Your task to perform on an android device: Show me productivity apps on the Play Store Image 0: 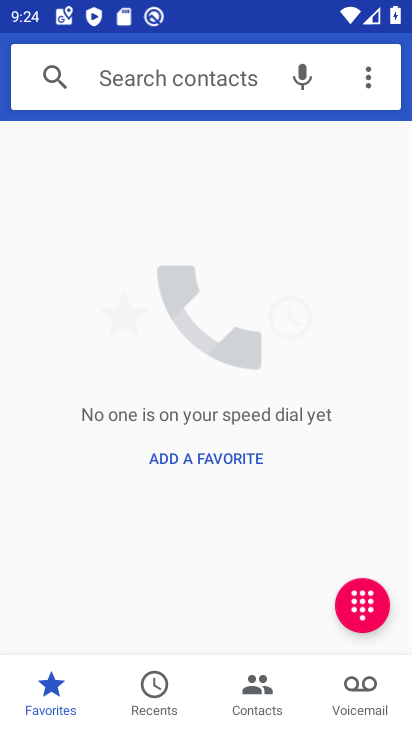
Step 0: press home button
Your task to perform on an android device: Show me productivity apps on the Play Store Image 1: 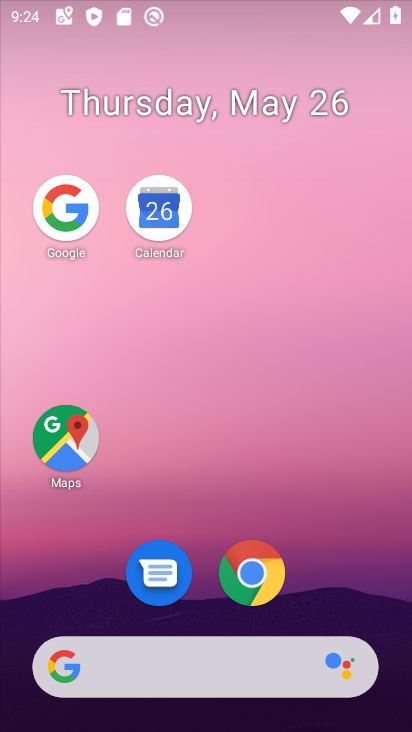
Step 1: drag from (327, 603) to (283, 156)
Your task to perform on an android device: Show me productivity apps on the Play Store Image 2: 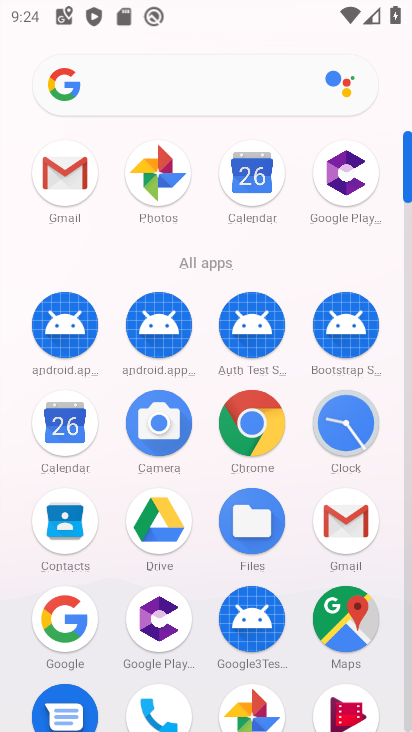
Step 2: drag from (269, 543) to (246, 153)
Your task to perform on an android device: Show me productivity apps on the Play Store Image 3: 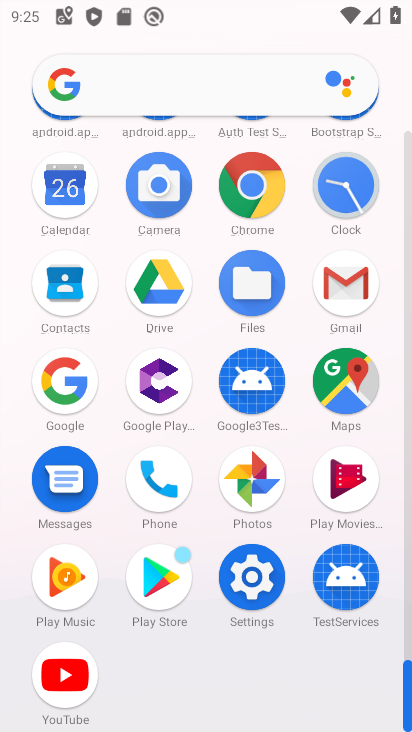
Step 3: click (163, 592)
Your task to perform on an android device: Show me productivity apps on the Play Store Image 4: 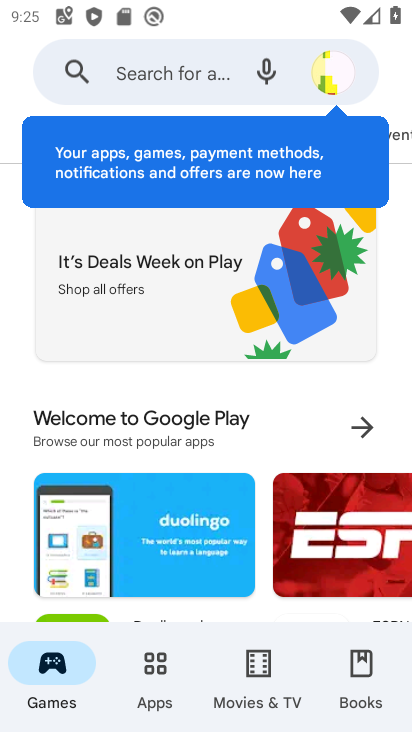
Step 4: click (165, 673)
Your task to perform on an android device: Show me productivity apps on the Play Store Image 5: 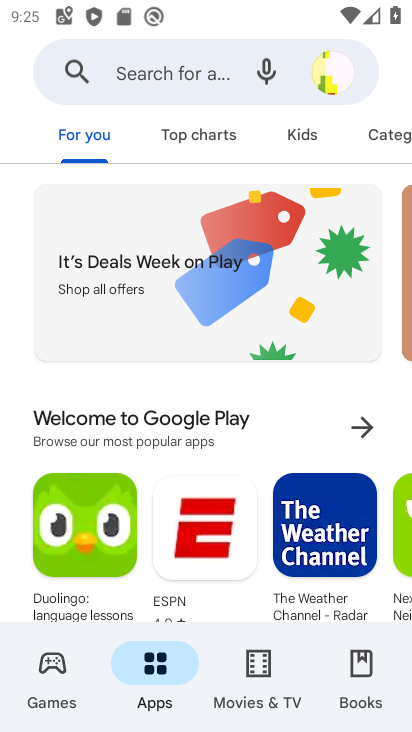
Step 5: click (369, 143)
Your task to perform on an android device: Show me productivity apps on the Play Store Image 6: 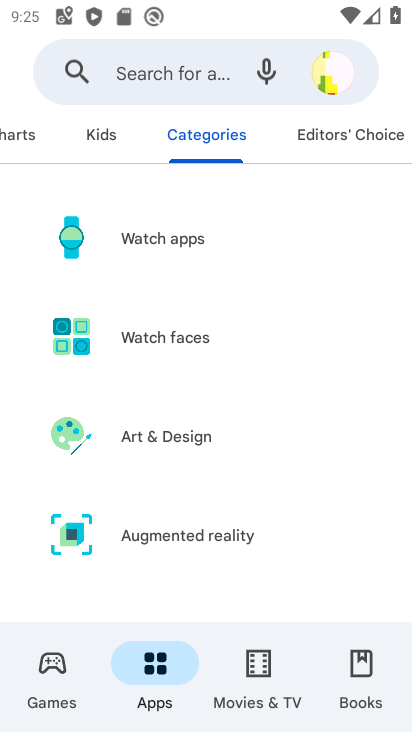
Step 6: drag from (185, 488) to (164, 110)
Your task to perform on an android device: Show me productivity apps on the Play Store Image 7: 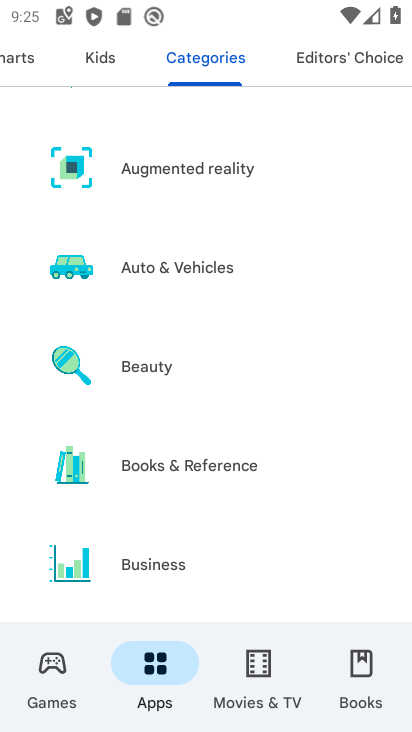
Step 7: drag from (221, 519) to (242, 185)
Your task to perform on an android device: Show me productivity apps on the Play Store Image 8: 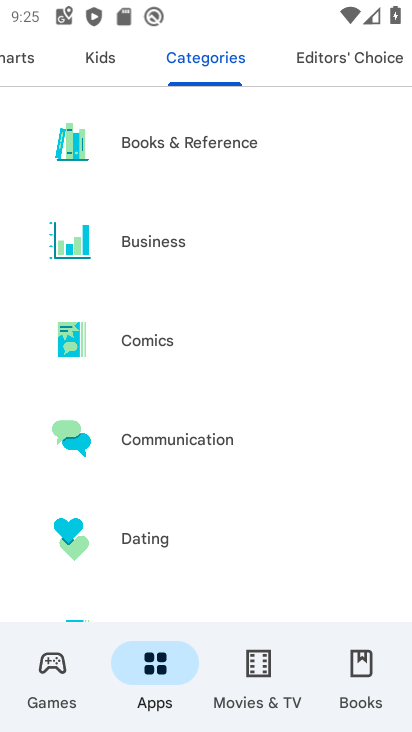
Step 8: drag from (288, 530) to (338, 174)
Your task to perform on an android device: Show me productivity apps on the Play Store Image 9: 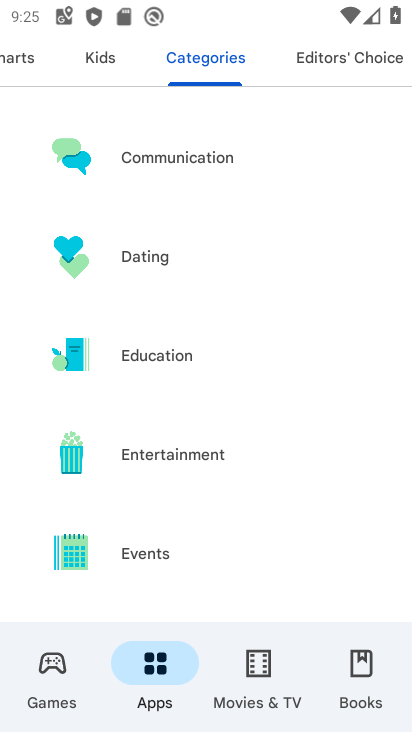
Step 9: drag from (221, 511) to (248, 175)
Your task to perform on an android device: Show me productivity apps on the Play Store Image 10: 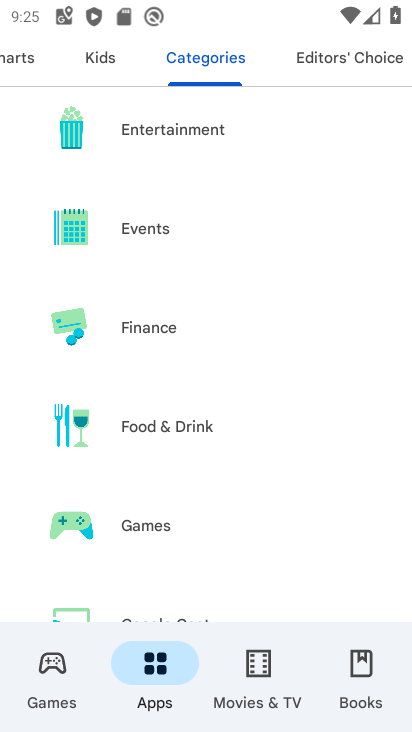
Step 10: drag from (245, 486) to (266, 137)
Your task to perform on an android device: Show me productivity apps on the Play Store Image 11: 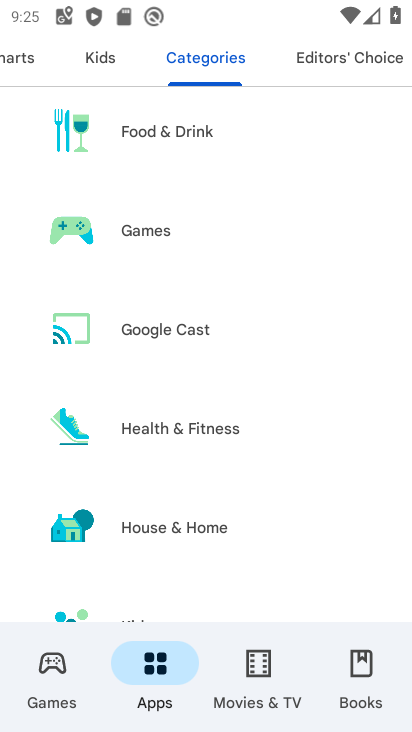
Step 11: drag from (224, 538) to (256, 135)
Your task to perform on an android device: Show me productivity apps on the Play Store Image 12: 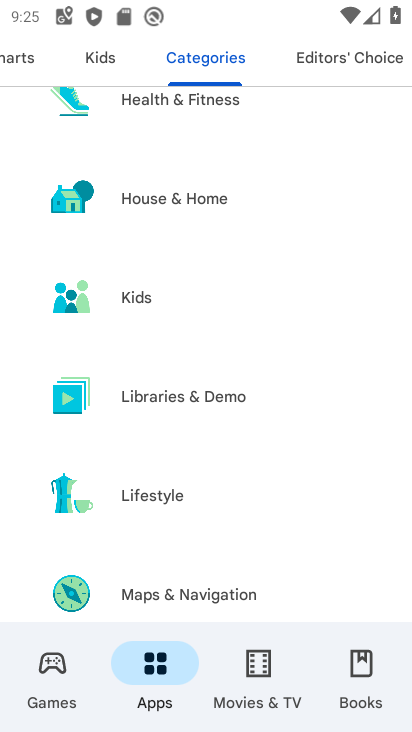
Step 12: drag from (204, 488) to (234, 174)
Your task to perform on an android device: Show me productivity apps on the Play Store Image 13: 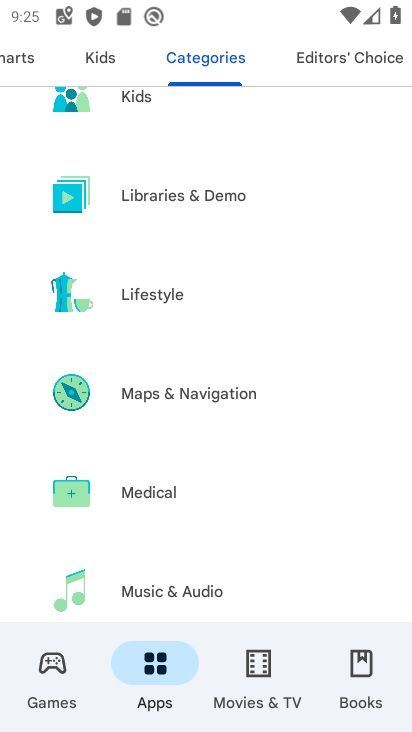
Step 13: drag from (197, 496) to (242, 193)
Your task to perform on an android device: Show me productivity apps on the Play Store Image 14: 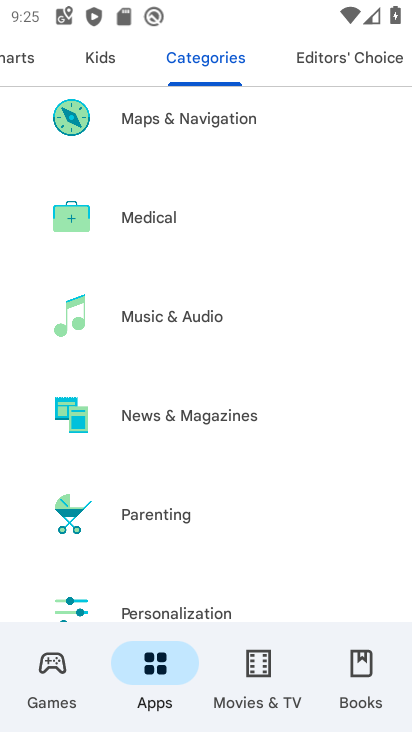
Step 14: drag from (215, 509) to (220, 206)
Your task to perform on an android device: Show me productivity apps on the Play Store Image 15: 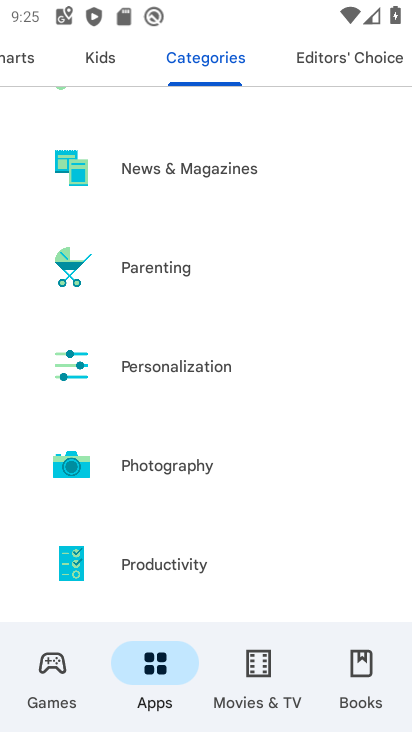
Step 15: click (210, 567)
Your task to perform on an android device: Show me productivity apps on the Play Store Image 16: 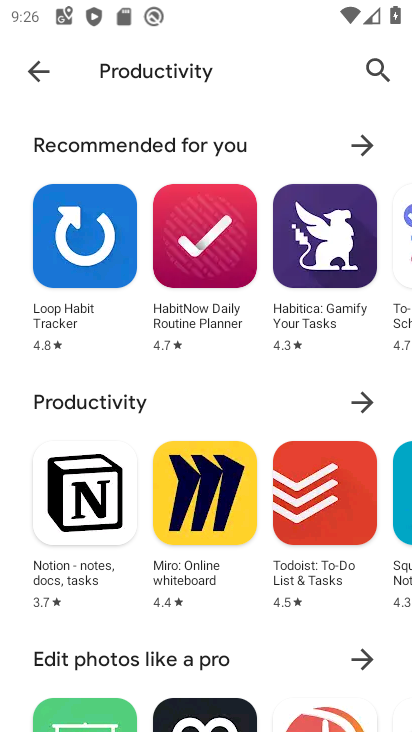
Step 16: task complete